Your task to perform on an android device: toggle notification dots Image 0: 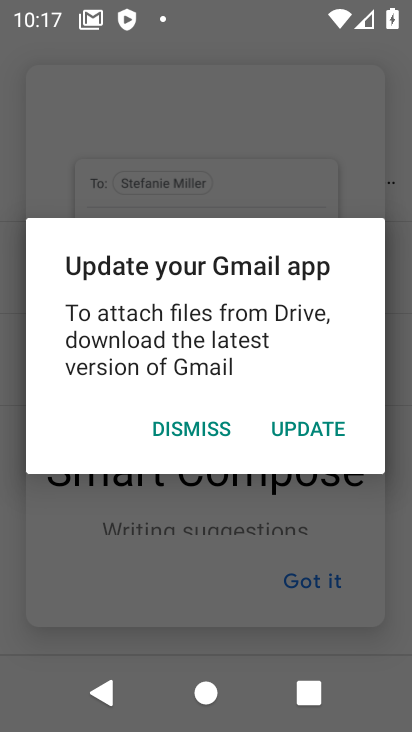
Step 0: press home button
Your task to perform on an android device: toggle notification dots Image 1: 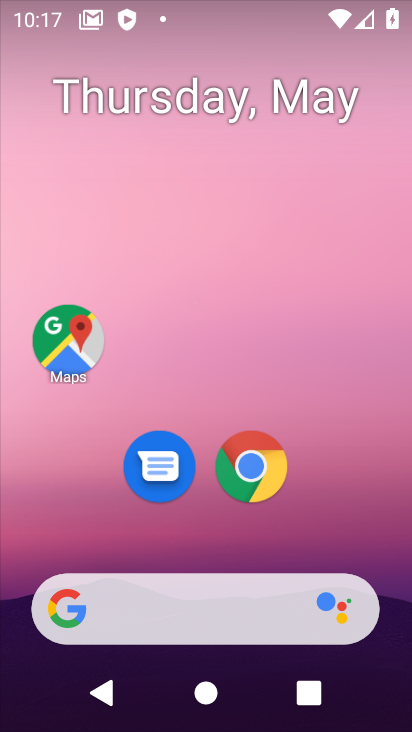
Step 1: drag from (163, 557) to (280, 8)
Your task to perform on an android device: toggle notification dots Image 2: 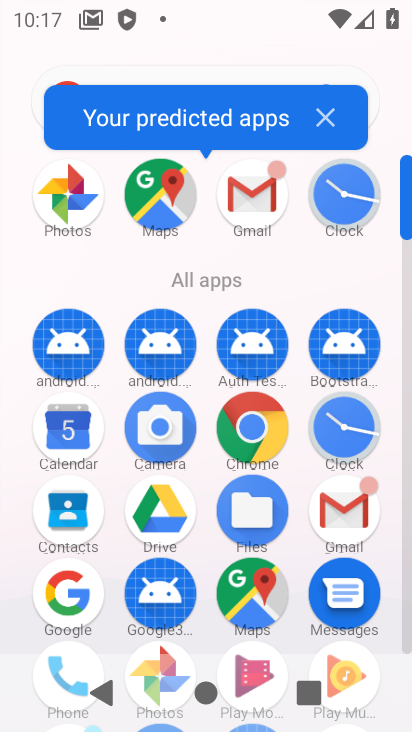
Step 2: drag from (226, 525) to (243, 94)
Your task to perform on an android device: toggle notification dots Image 3: 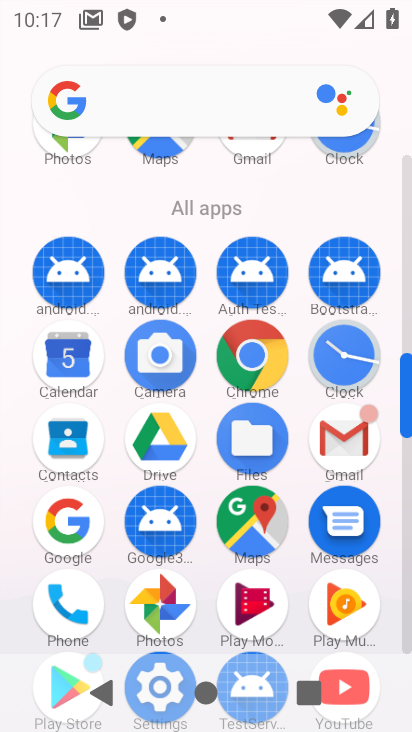
Step 3: drag from (180, 478) to (238, 67)
Your task to perform on an android device: toggle notification dots Image 4: 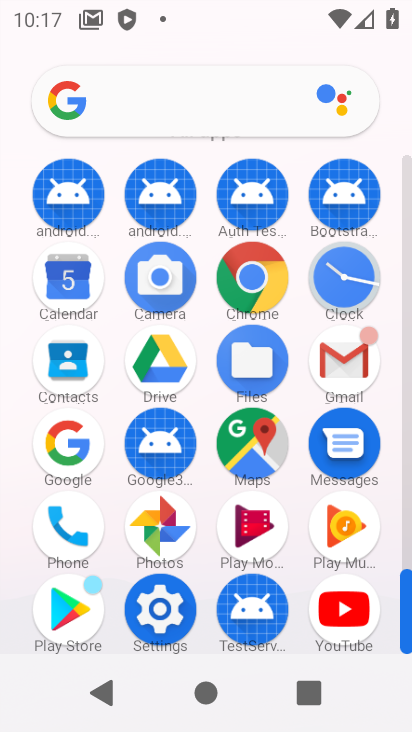
Step 4: click (154, 622)
Your task to perform on an android device: toggle notification dots Image 5: 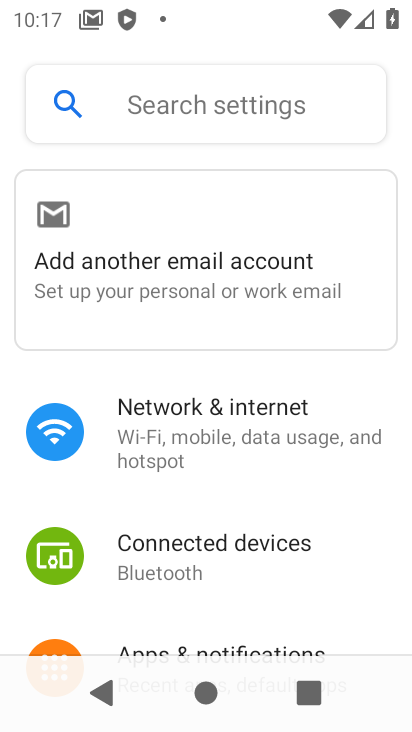
Step 5: drag from (234, 623) to (277, 346)
Your task to perform on an android device: toggle notification dots Image 6: 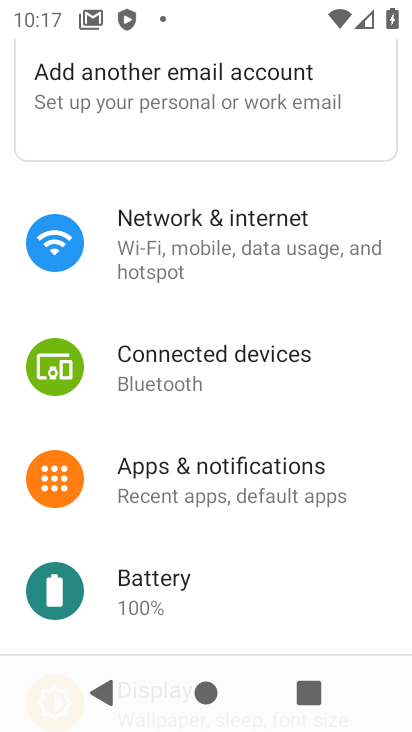
Step 6: click (197, 474)
Your task to perform on an android device: toggle notification dots Image 7: 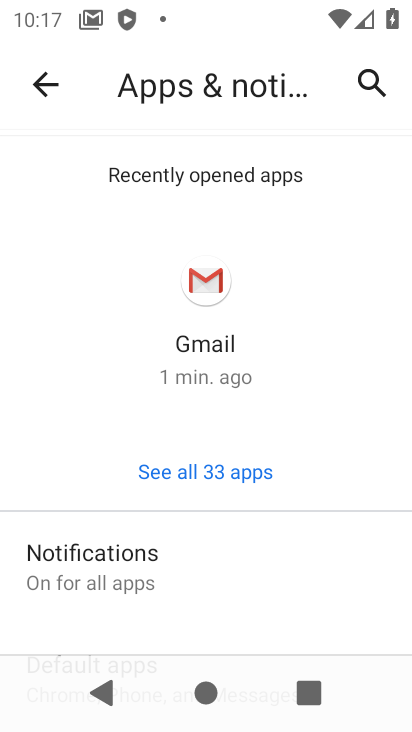
Step 7: click (99, 560)
Your task to perform on an android device: toggle notification dots Image 8: 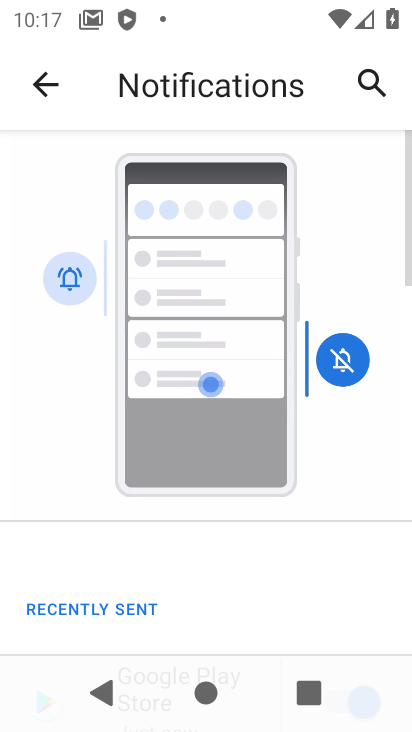
Step 8: drag from (231, 608) to (310, 189)
Your task to perform on an android device: toggle notification dots Image 9: 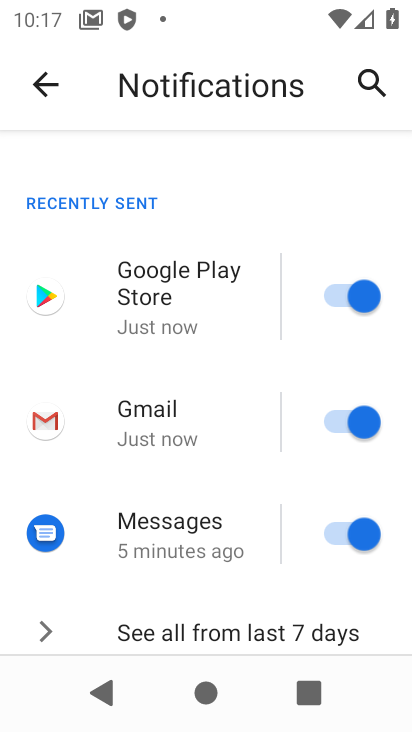
Step 9: drag from (231, 607) to (241, 310)
Your task to perform on an android device: toggle notification dots Image 10: 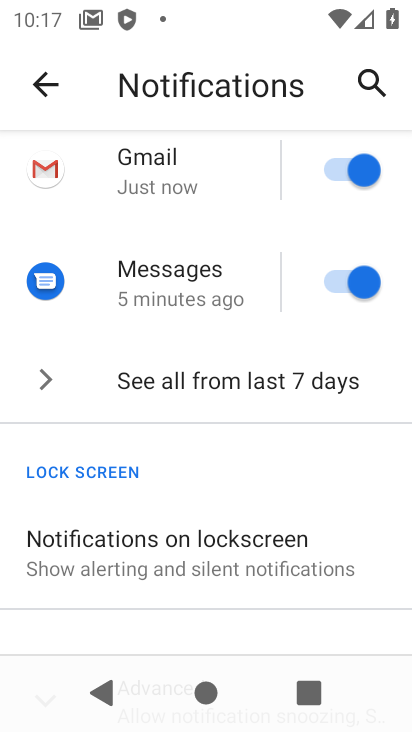
Step 10: drag from (180, 612) to (260, 301)
Your task to perform on an android device: toggle notification dots Image 11: 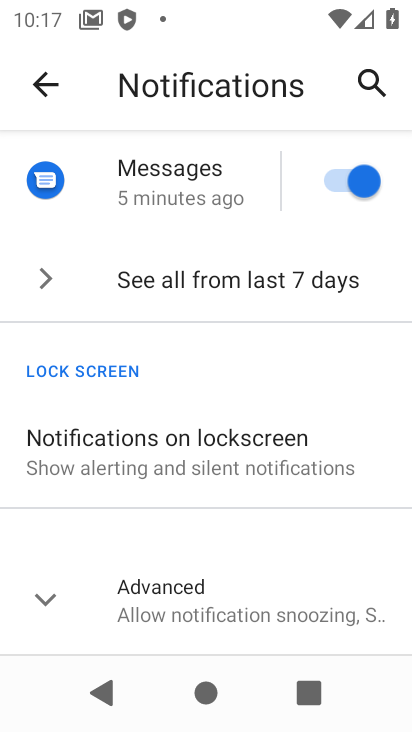
Step 11: click (193, 607)
Your task to perform on an android device: toggle notification dots Image 12: 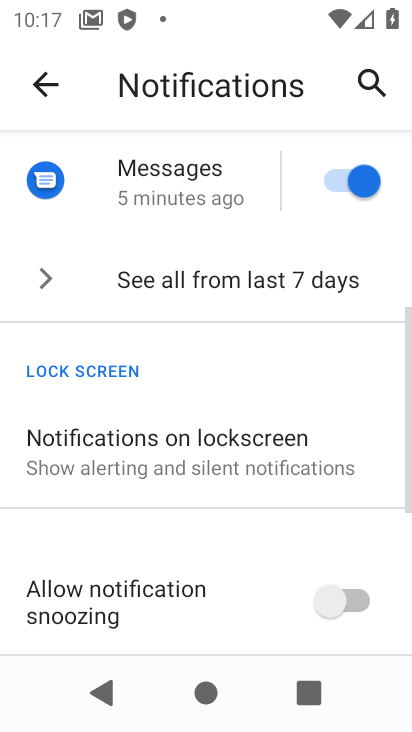
Step 12: drag from (189, 623) to (264, 298)
Your task to perform on an android device: toggle notification dots Image 13: 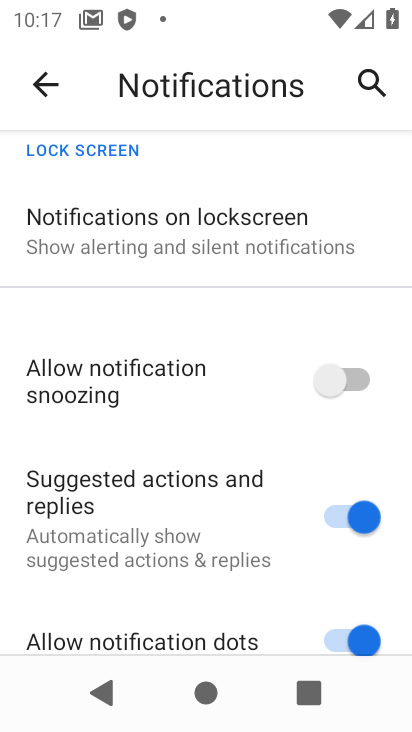
Step 13: drag from (180, 637) to (228, 379)
Your task to perform on an android device: toggle notification dots Image 14: 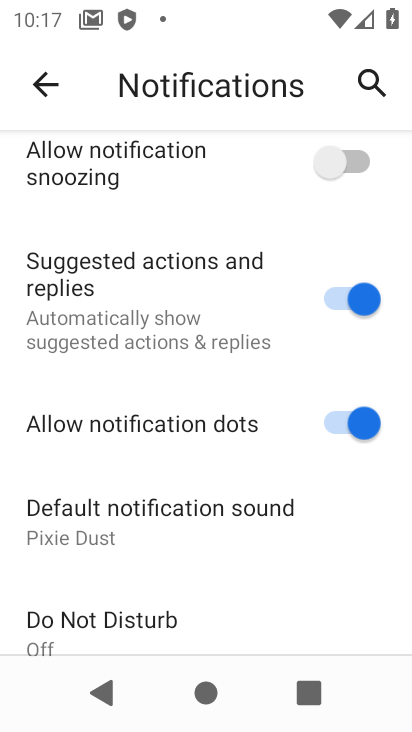
Step 14: click (342, 418)
Your task to perform on an android device: toggle notification dots Image 15: 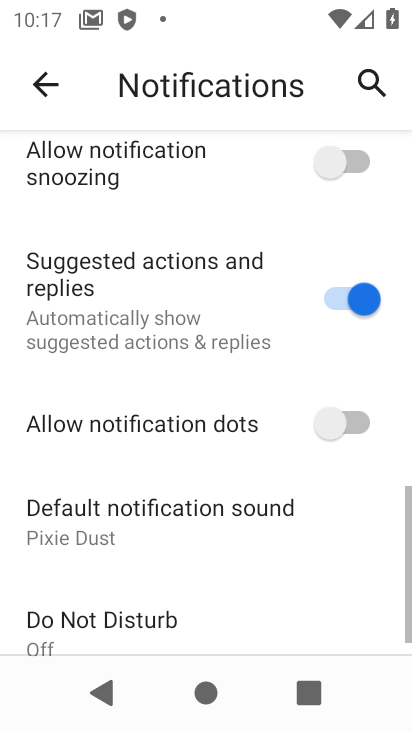
Step 15: task complete